Your task to perform on an android device: turn on translation in the chrome app Image 0: 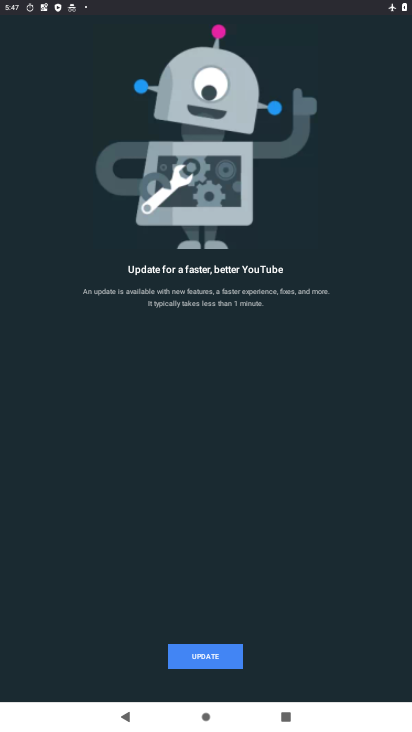
Step 0: press home button
Your task to perform on an android device: turn on translation in the chrome app Image 1: 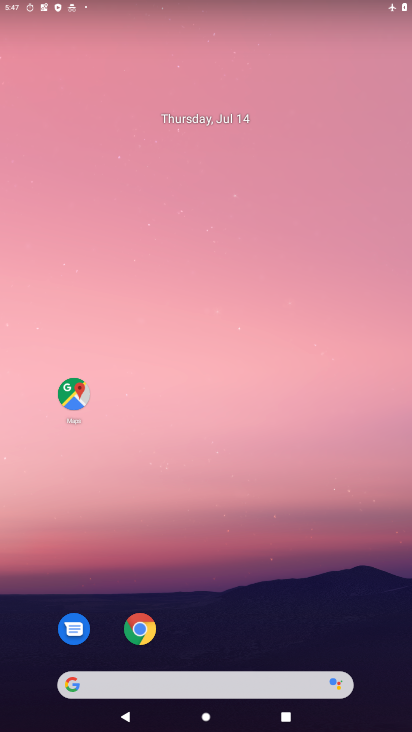
Step 1: drag from (281, 681) to (332, 0)
Your task to perform on an android device: turn on translation in the chrome app Image 2: 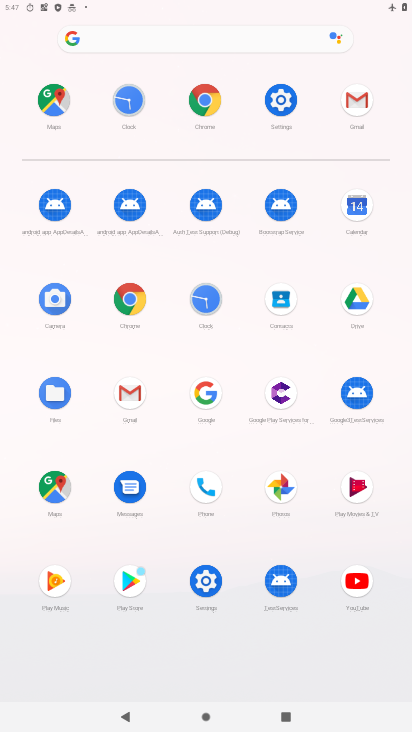
Step 2: click (129, 297)
Your task to perform on an android device: turn on translation in the chrome app Image 3: 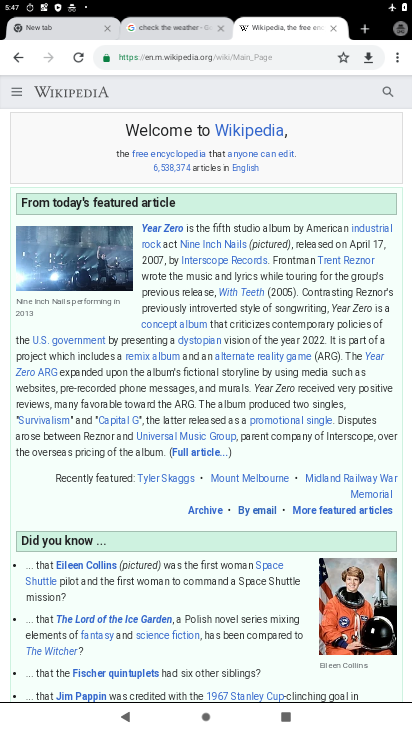
Step 3: click (395, 53)
Your task to perform on an android device: turn on translation in the chrome app Image 4: 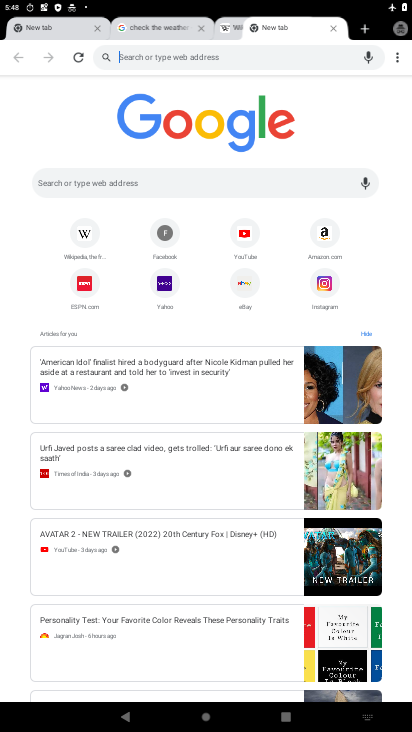
Step 4: drag from (396, 52) to (319, 267)
Your task to perform on an android device: turn on translation in the chrome app Image 5: 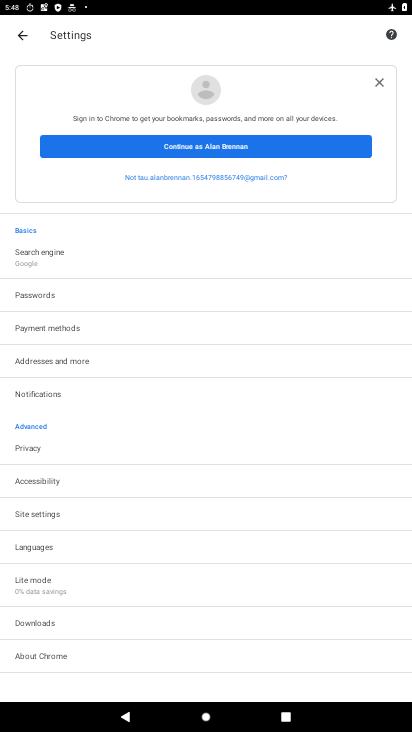
Step 5: click (51, 539)
Your task to perform on an android device: turn on translation in the chrome app Image 6: 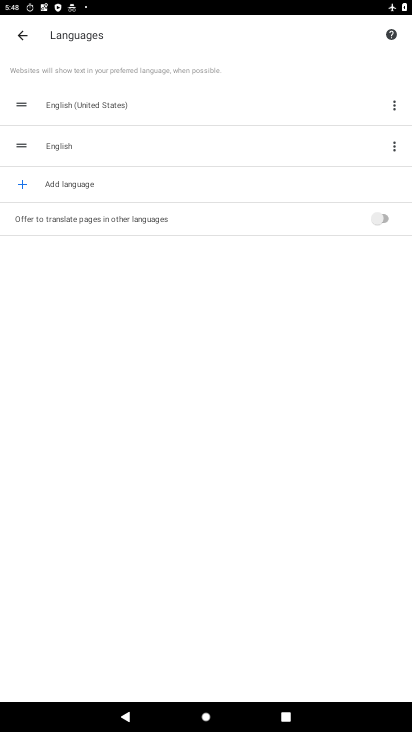
Step 6: click (389, 214)
Your task to perform on an android device: turn on translation in the chrome app Image 7: 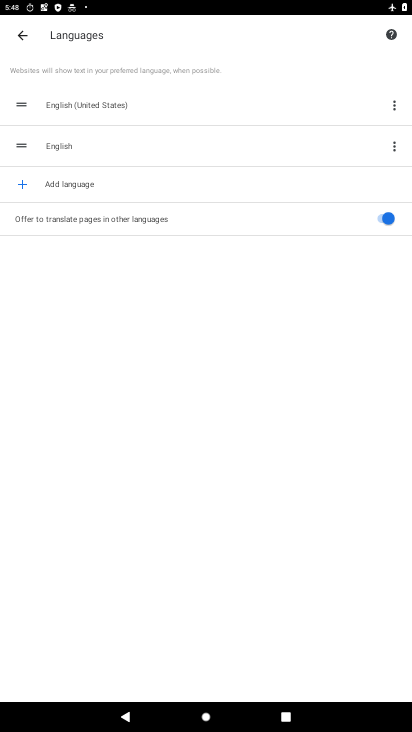
Step 7: task complete